Your task to perform on an android device: turn on showing notifications on the lock screen Image 0: 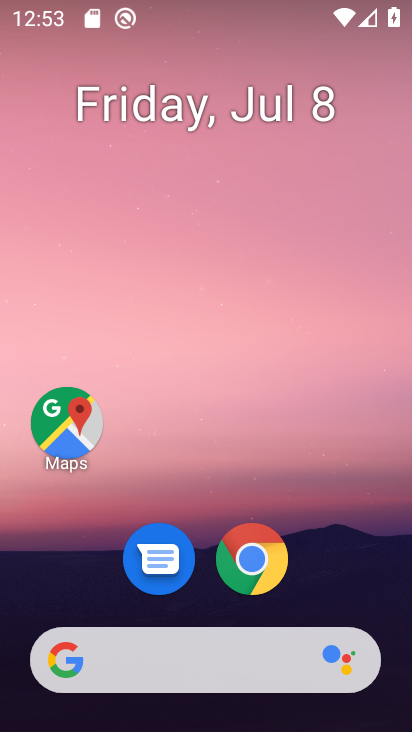
Step 0: drag from (206, 616) to (294, 33)
Your task to perform on an android device: turn on showing notifications on the lock screen Image 1: 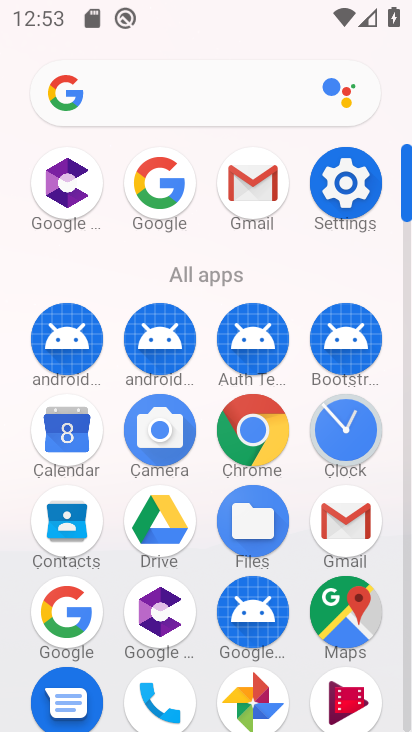
Step 1: click (339, 181)
Your task to perform on an android device: turn on showing notifications on the lock screen Image 2: 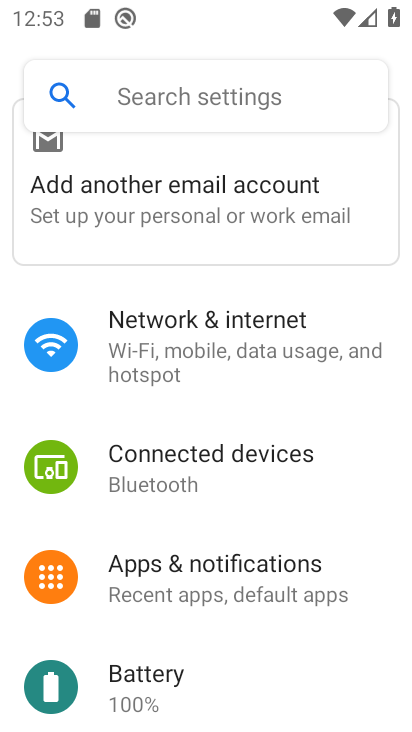
Step 2: click (272, 573)
Your task to perform on an android device: turn on showing notifications on the lock screen Image 3: 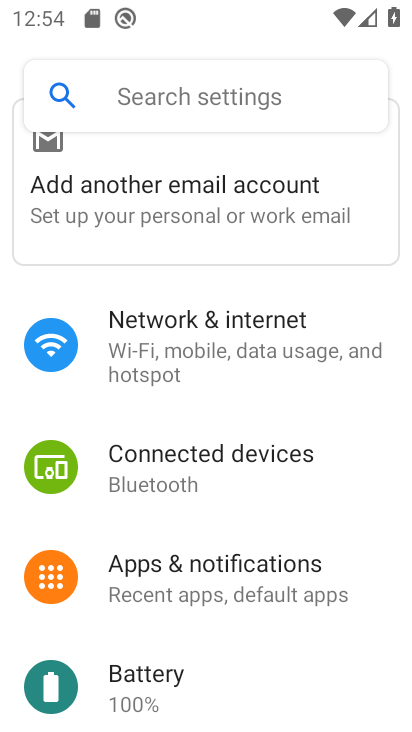
Step 3: drag from (272, 573) to (214, 222)
Your task to perform on an android device: turn on showing notifications on the lock screen Image 4: 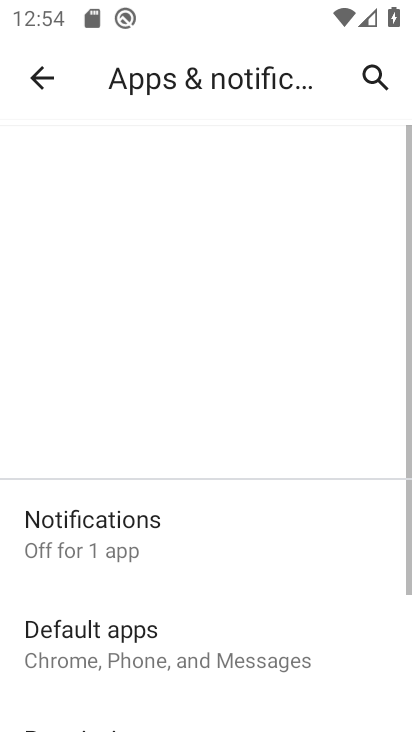
Step 4: drag from (201, 530) to (192, 268)
Your task to perform on an android device: turn on showing notifications on the lock screen Image 5: 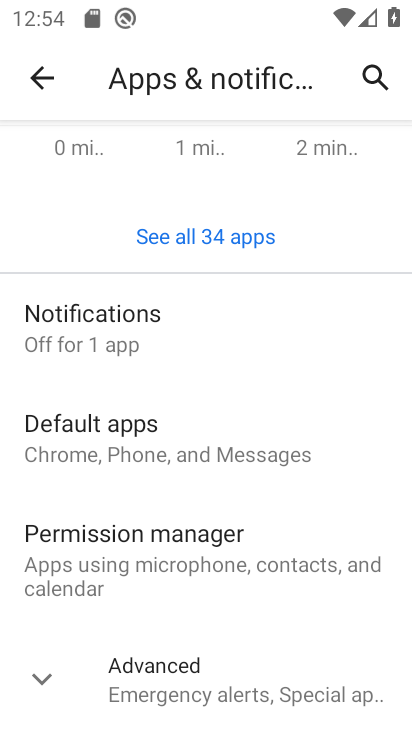
Step 5: click (133, 323)
Your task to perform on an android device: turn on showing notifications on the lock screen Image 6: 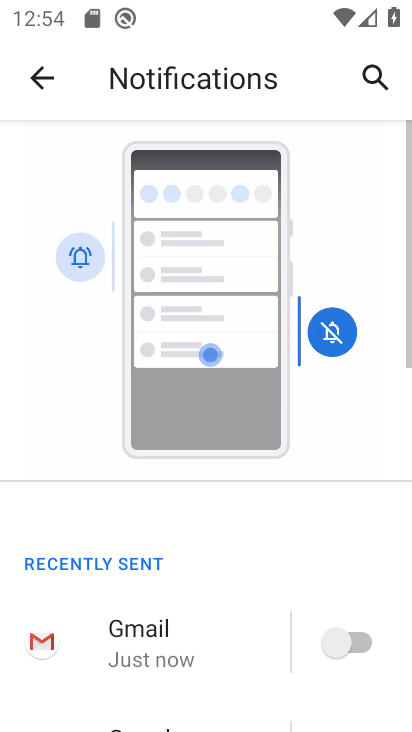
Step 6: drag from (188, 562) to (145, 90)
Your task to perform on an android device: turn on showing notifications on the lock screen Image 7: 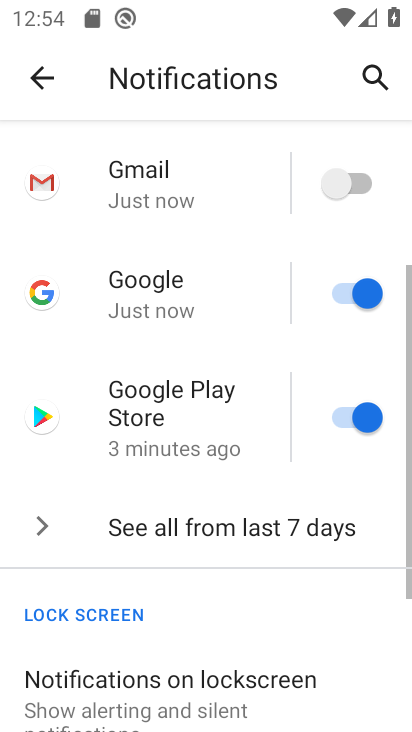
Step 7: drag from (141, 572) to (138, 183)
Your task to perform on an android device: turn on showing notifications on the lock screen Image 8: 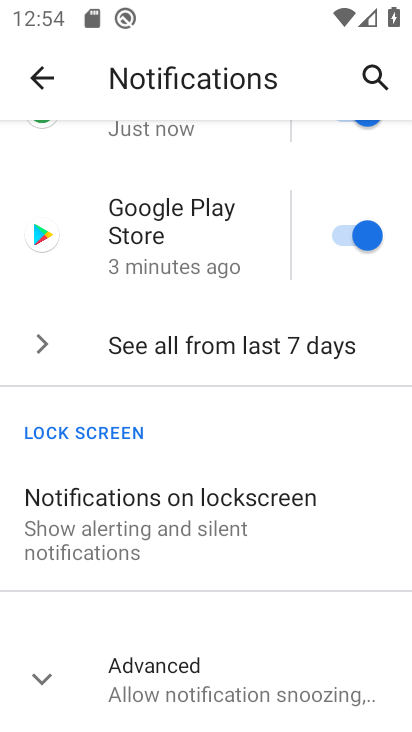
Step 8: click (179, 468)
Your task to perform on an android device: turn on showing notifications on the lock screen Image 9: 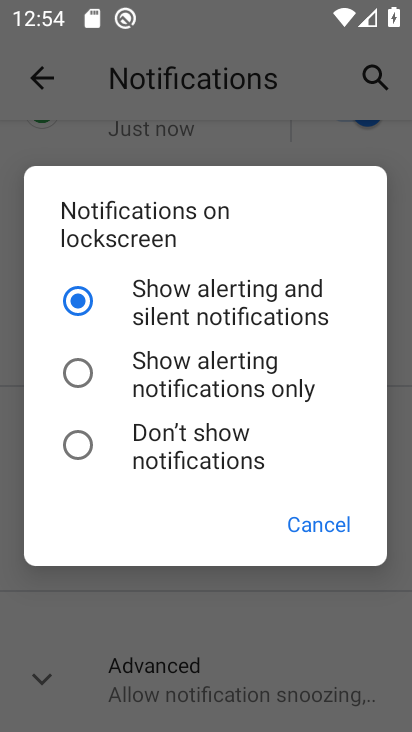
Step 9: click (168, 272)
Your task to perform on an android device: turn on showing notifications on the lock screen Image 10: 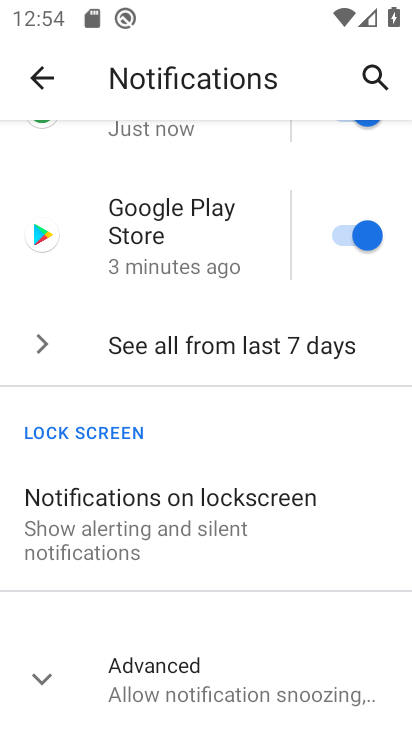
Step 10: task complete